Your task to perform on an android device: Open Reddit.com Image 0: 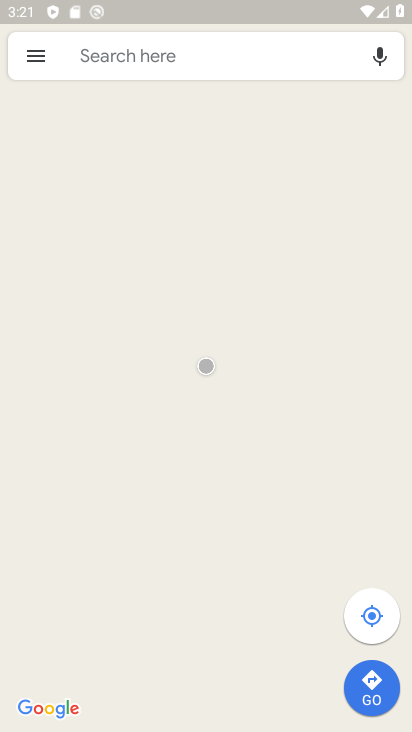
Step 0: press back button
Your task to perform on an android device: Open Reddit.com Image 1: 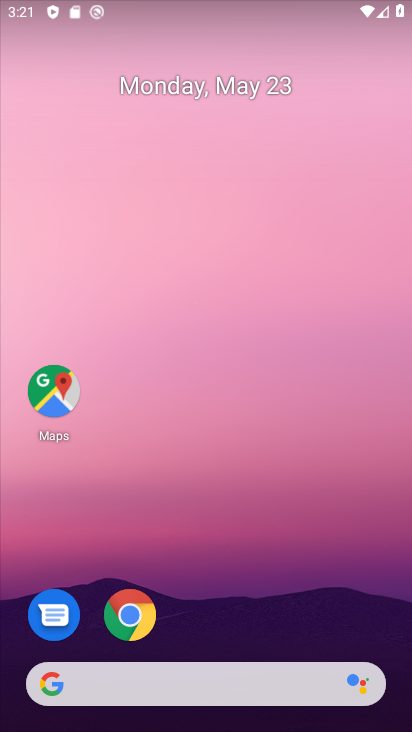
Step 1: drag from (229, 576) to (226, 13)
Your task to perform on an android device: Open Reddit.com Image 2: 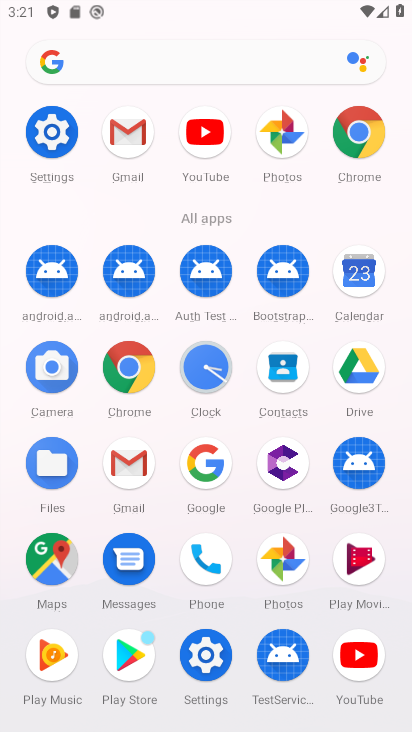
Step 2: click (127, 367)
Your task to perform on an android device: Open Reddit.com Image 3: 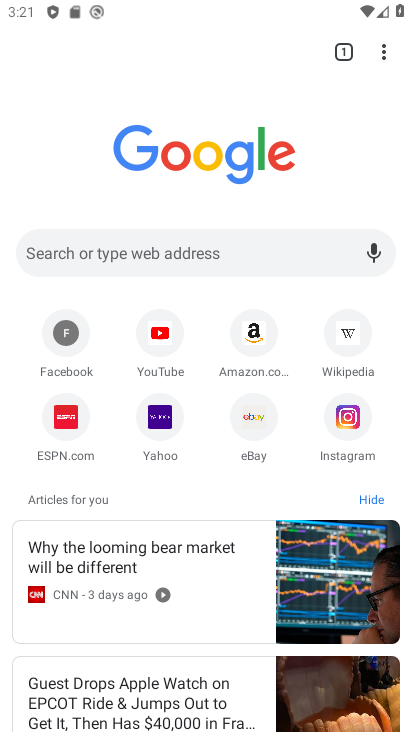
Step 3: click (249, 259)
Your task to perform on an android device: Open Reddit.com Image 4: 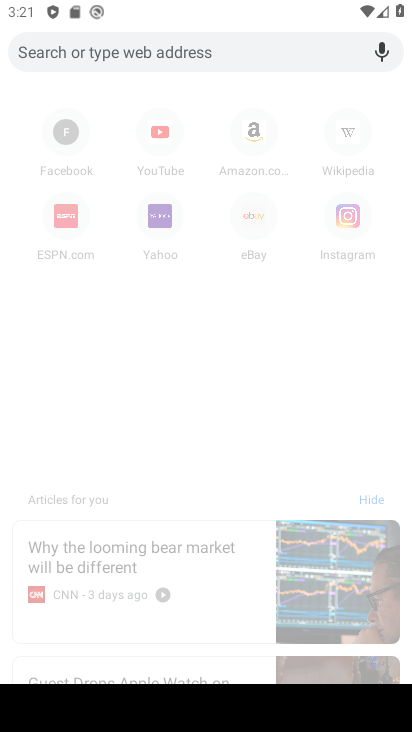
Step 4: type "Reddit.com"
Your task to perform on an android device: Open Reddit.com Image 5: 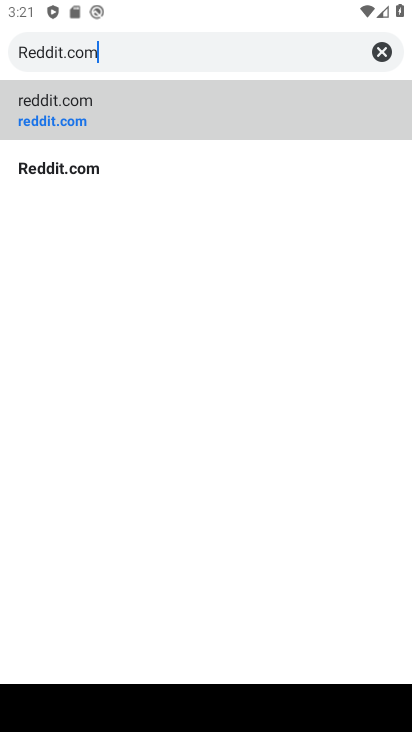
Step 5: type ""
Your task to perform on an android device: Open Reddit.com Image 6: 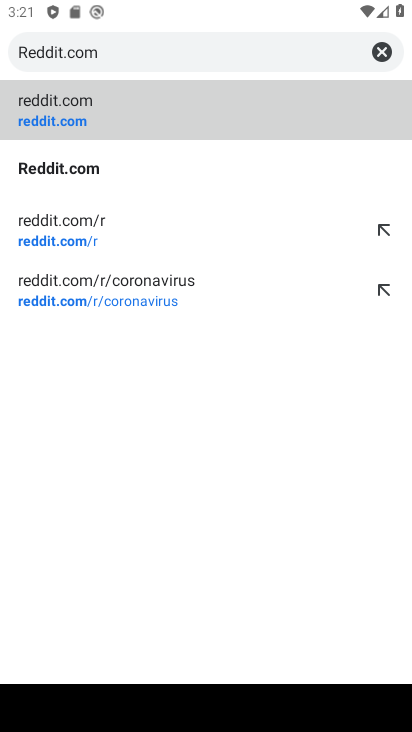
Step 6: click (102, 103)
Your task to perform on an android device: Open Reddit.com Image 7: 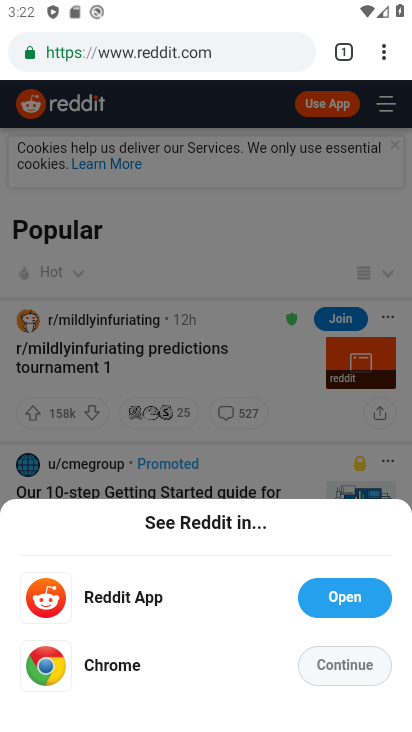
Step 7: task complete